Your task to perform on an android device: Add razer thresher to the cart on bestbuy, then select checkout. Image 0: 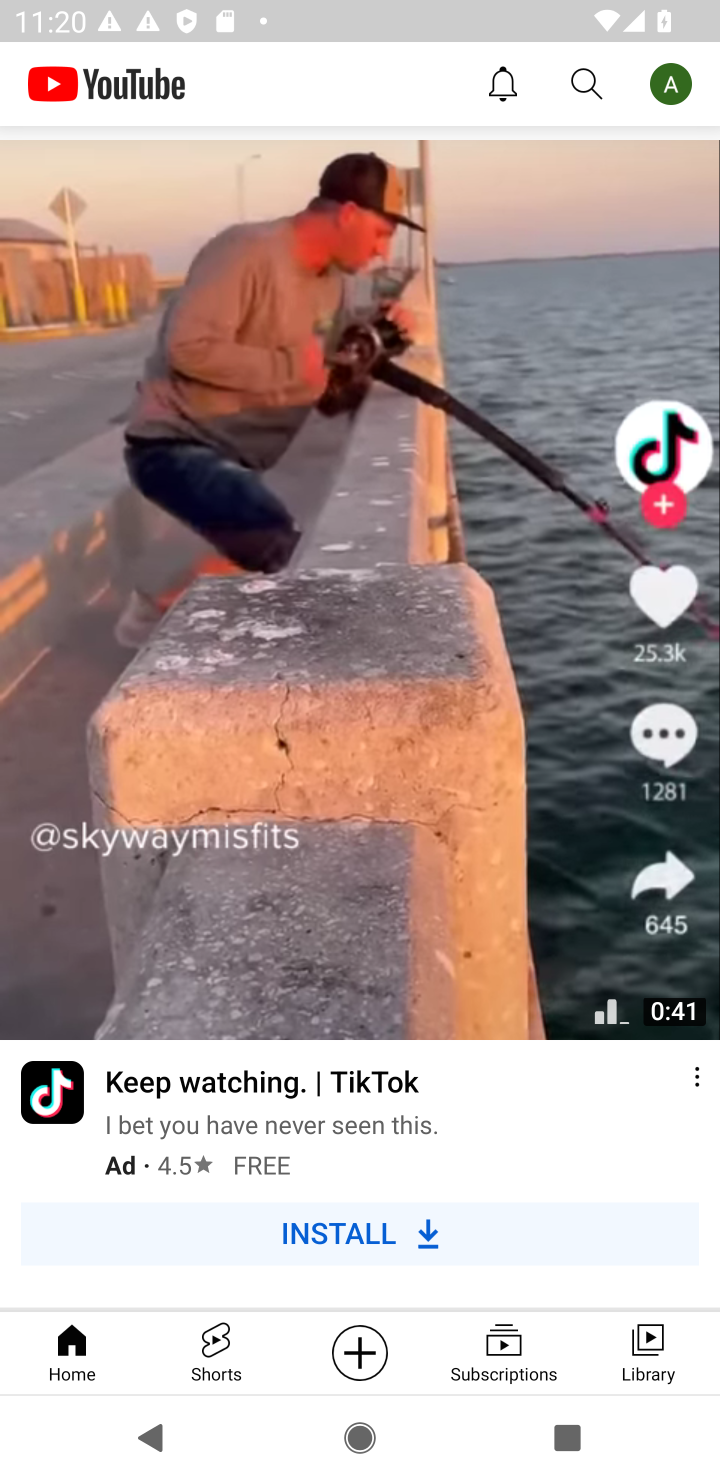
Step 0: press home button
Your task to perform on an android device: Add razer thresher to the cart on bestbuy, then select checkout. Image 1: 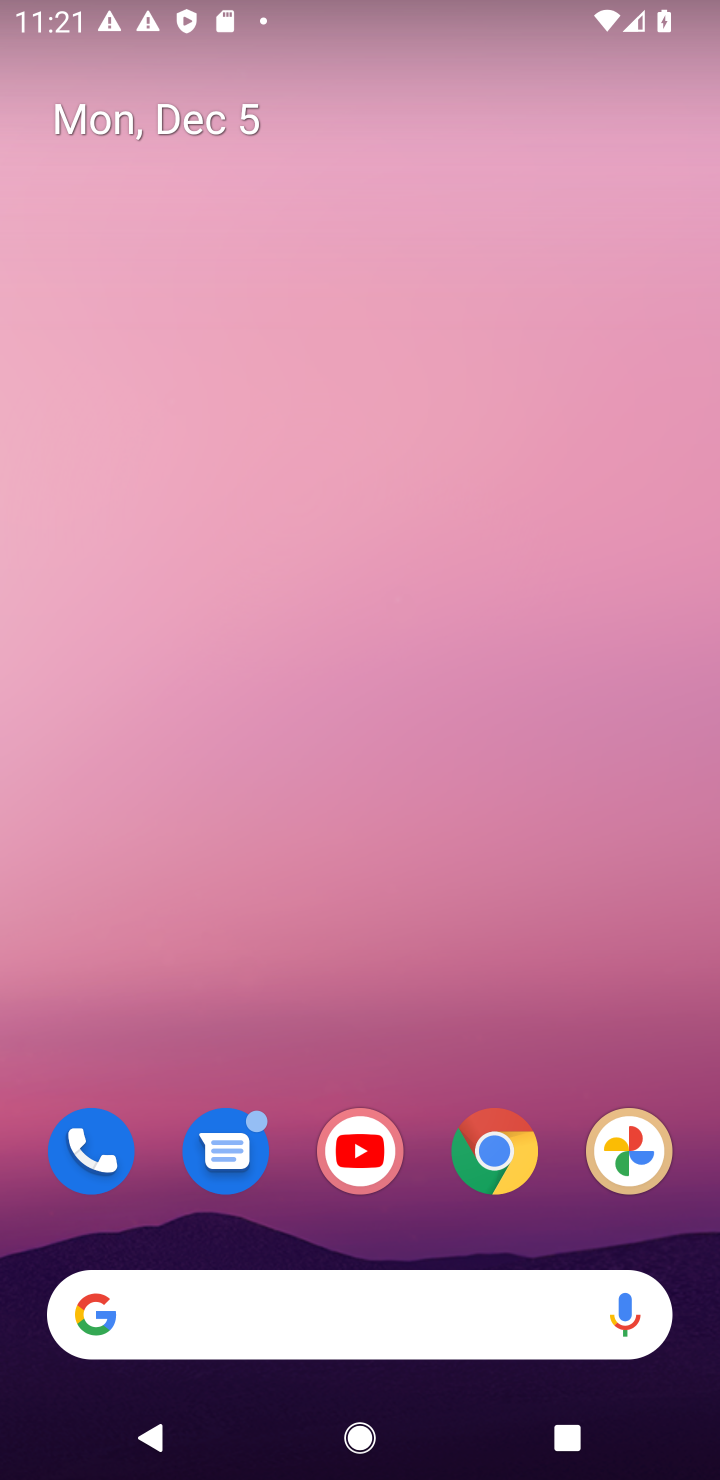
Step 1: click (499, 1163)
Your task to perform on an android device: Add razer thresher to the cart on bestbuy, then select checkout. Image 2: 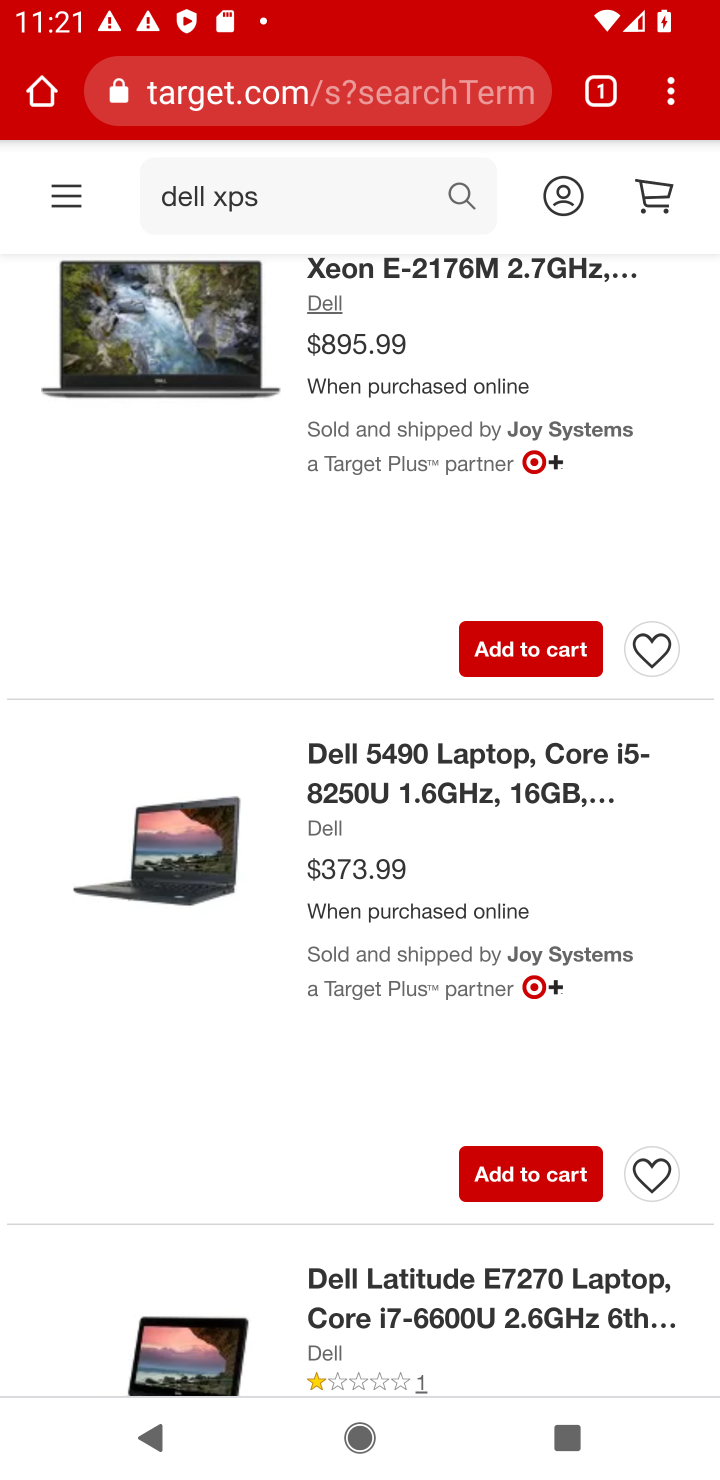
Step 2: click (282, 86)
Your task to perform on an android device: Add razer thresher to the cart on bestbuy, then select checkout. Image 3: 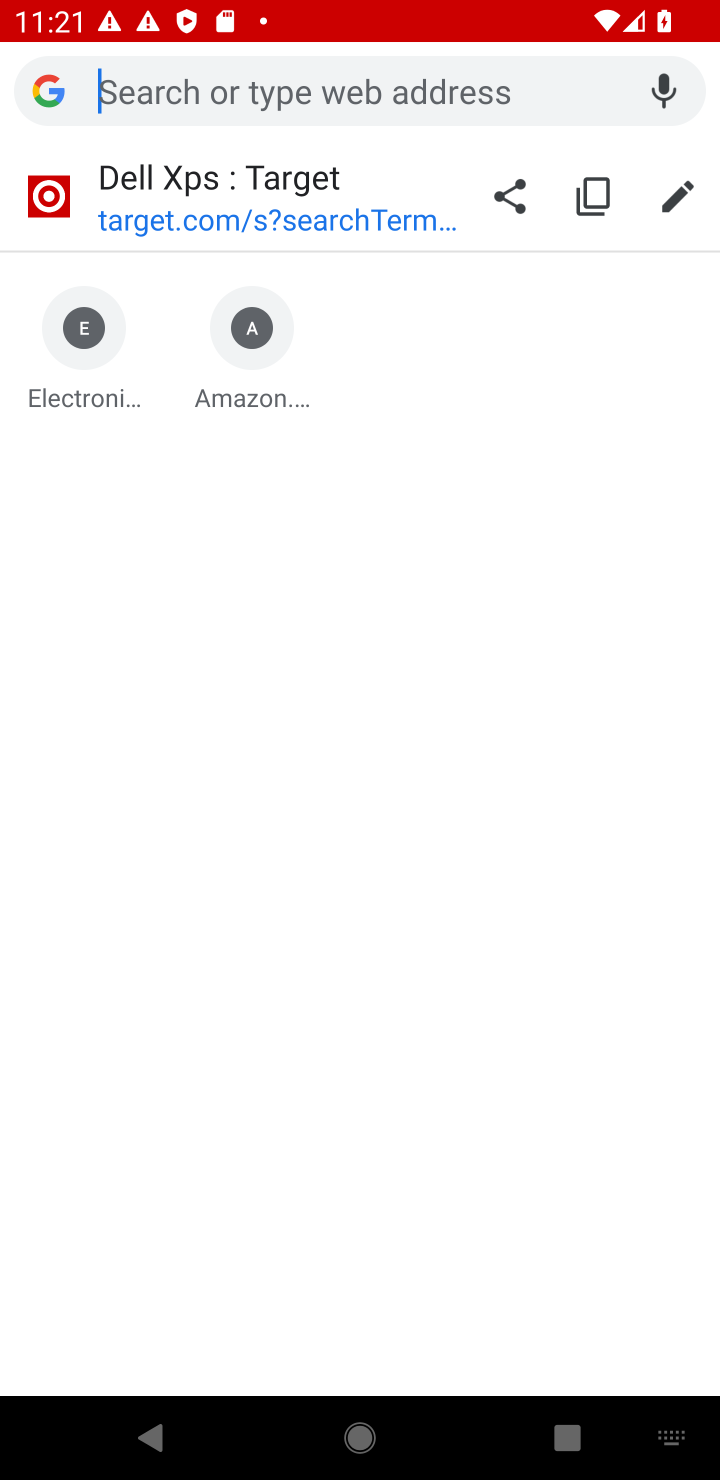
Step 3: type "bestbuy.com"
Your task to perform on an android device: Add razer thresher to the cart on bestbuy, then select checkout. Image 4: 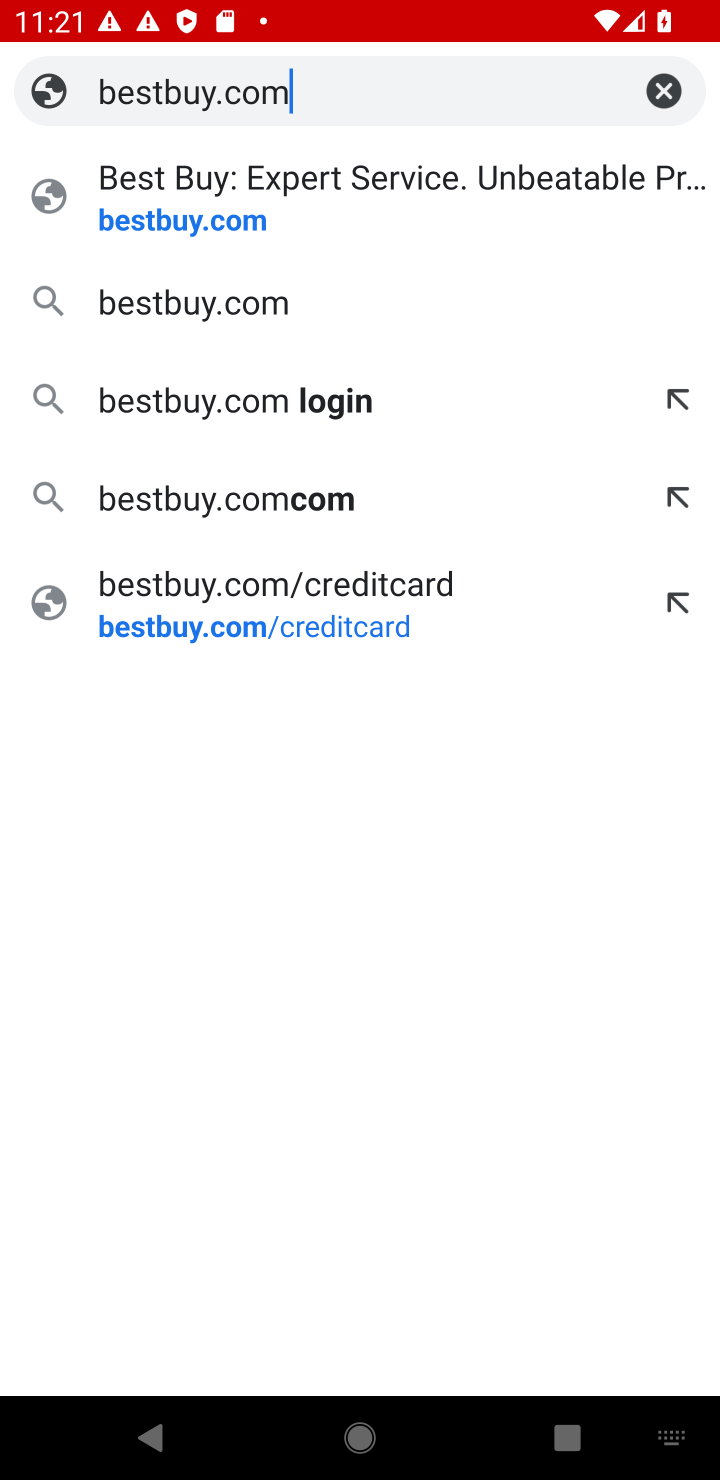
Step 4: click (154, 222)
Your task to perform on an android device: Add razer thresher to the cart on bestbuy, then select checkout. Image 5: 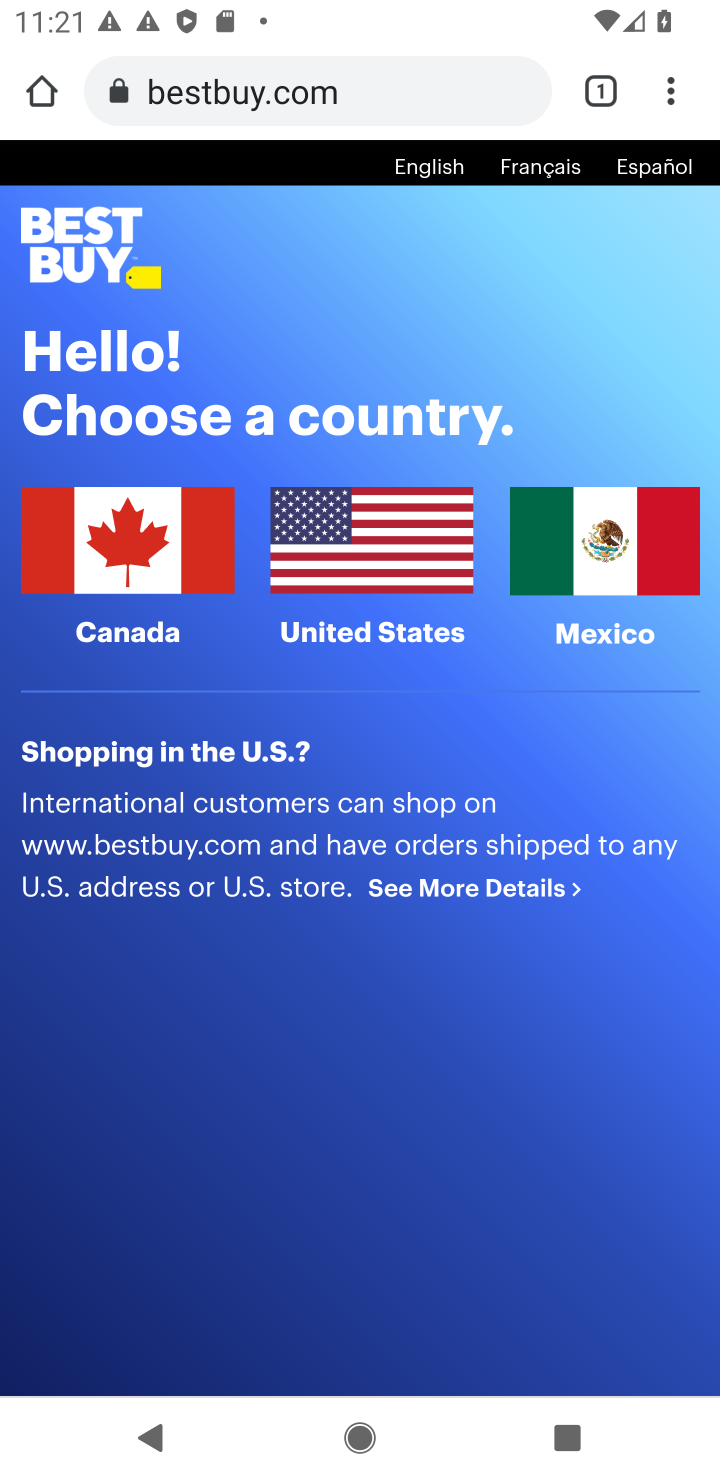
Step 5: click (374, 555)
Your task to perform on an android device: Add razer thresher to the cart on bestbuy, then select checkout. Image 6: 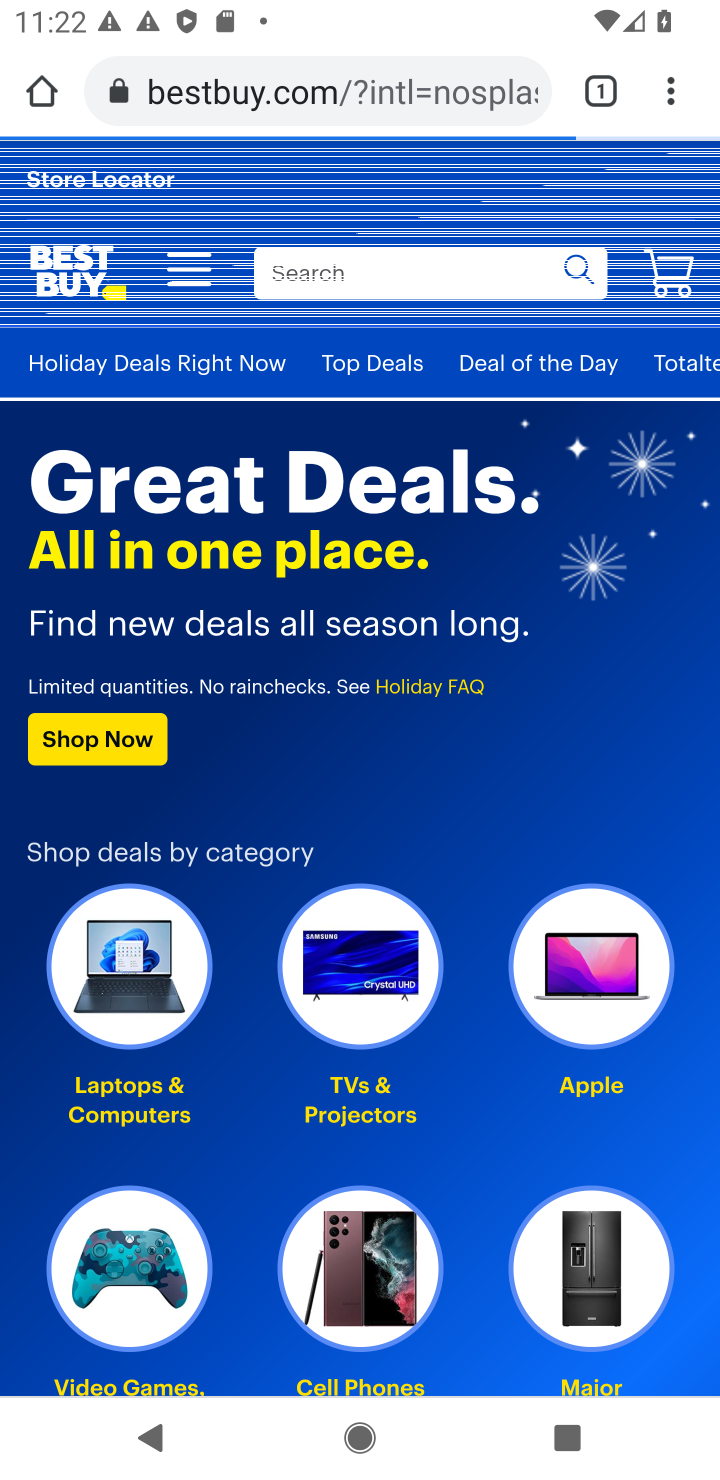
Step 6: click (327, 278)
Your task to perform on an android device: Add razer thresher to the cart on bestbuy, then select checkout. Image 7: 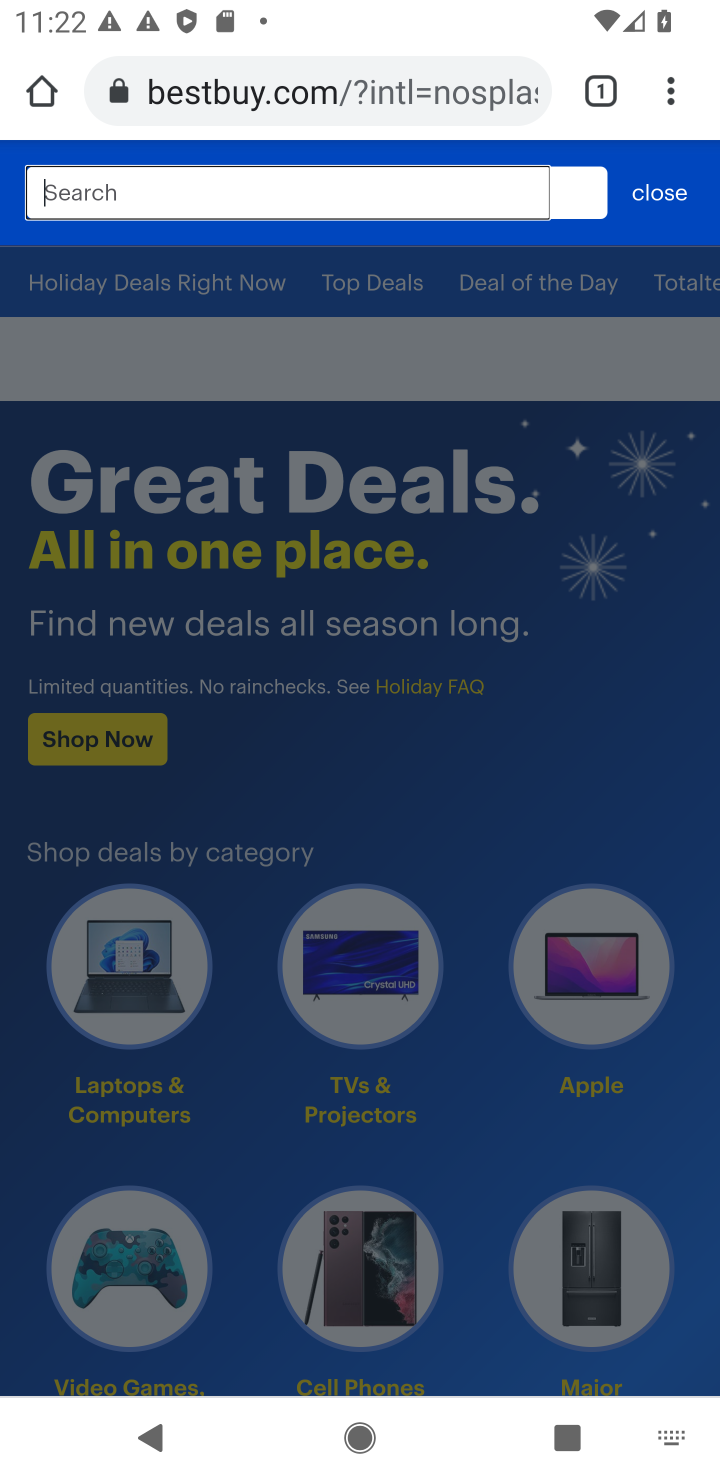
Step 7: click (327, 278)
Your task to perform on an android device: Add razer thresher to the cart on bestbuy, then select checkout. Image 8: 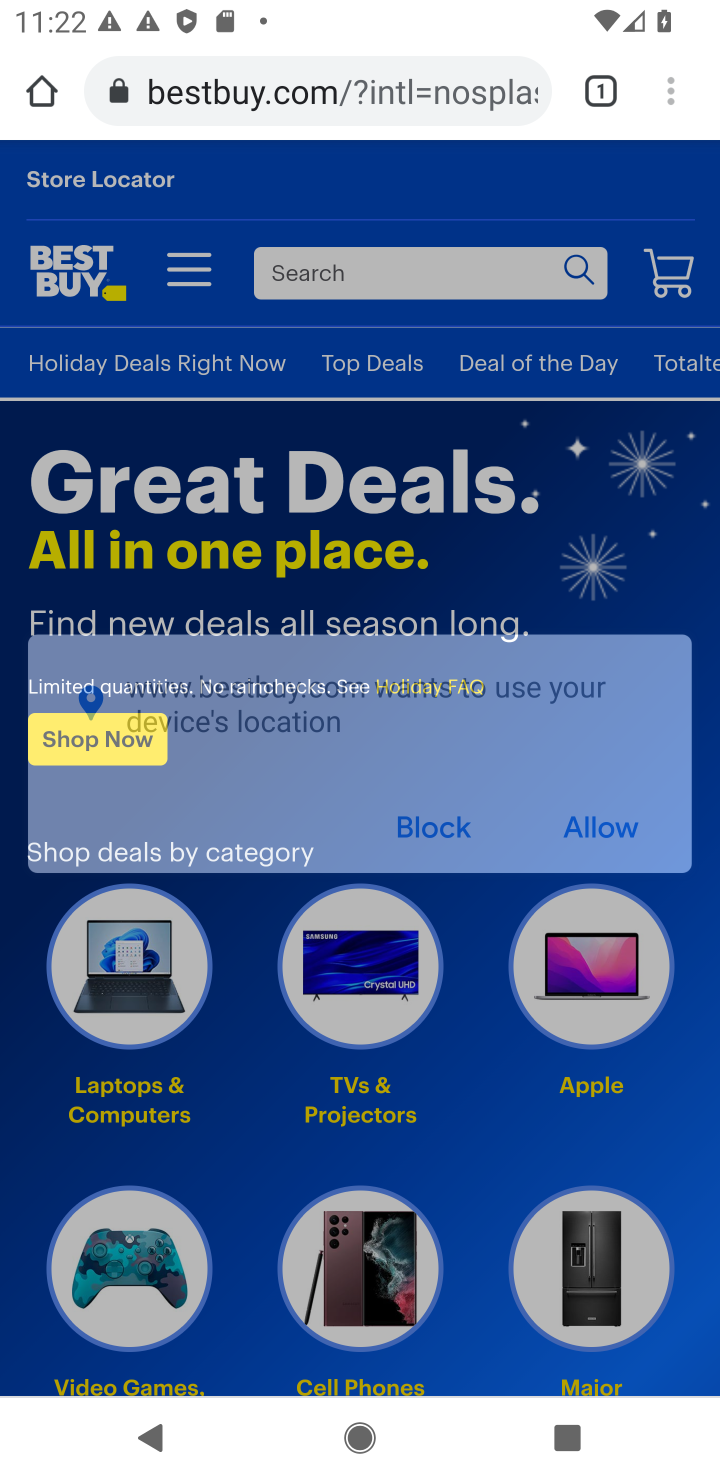
Step 8: type "razer thresher"
Your task to perform on an android device: Add razer thresher to the cart on bestbuy, then select checkout. Image 9: 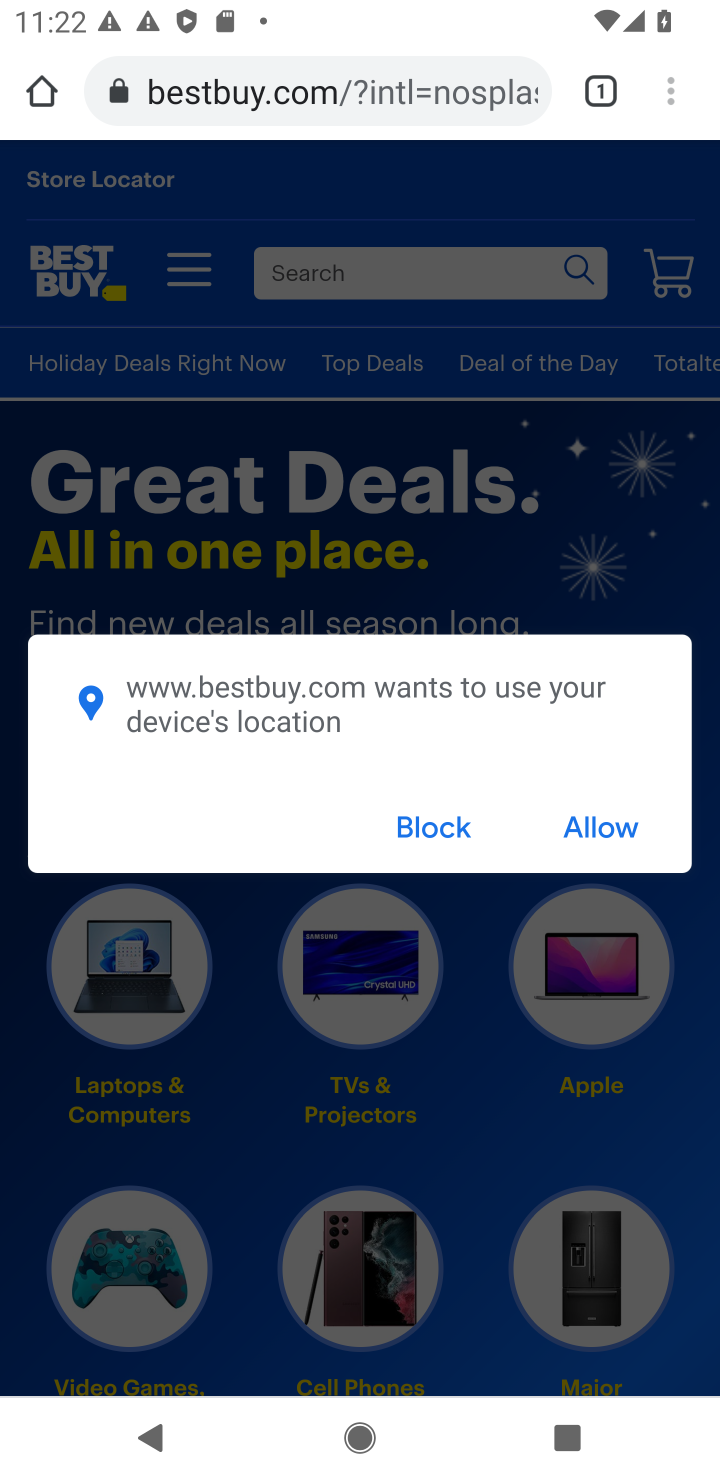
Step 9: click (410, 824)
Your task to perform on an android device: Add razer thresher to the cart on bestbuy, then select checkout. Image 10: 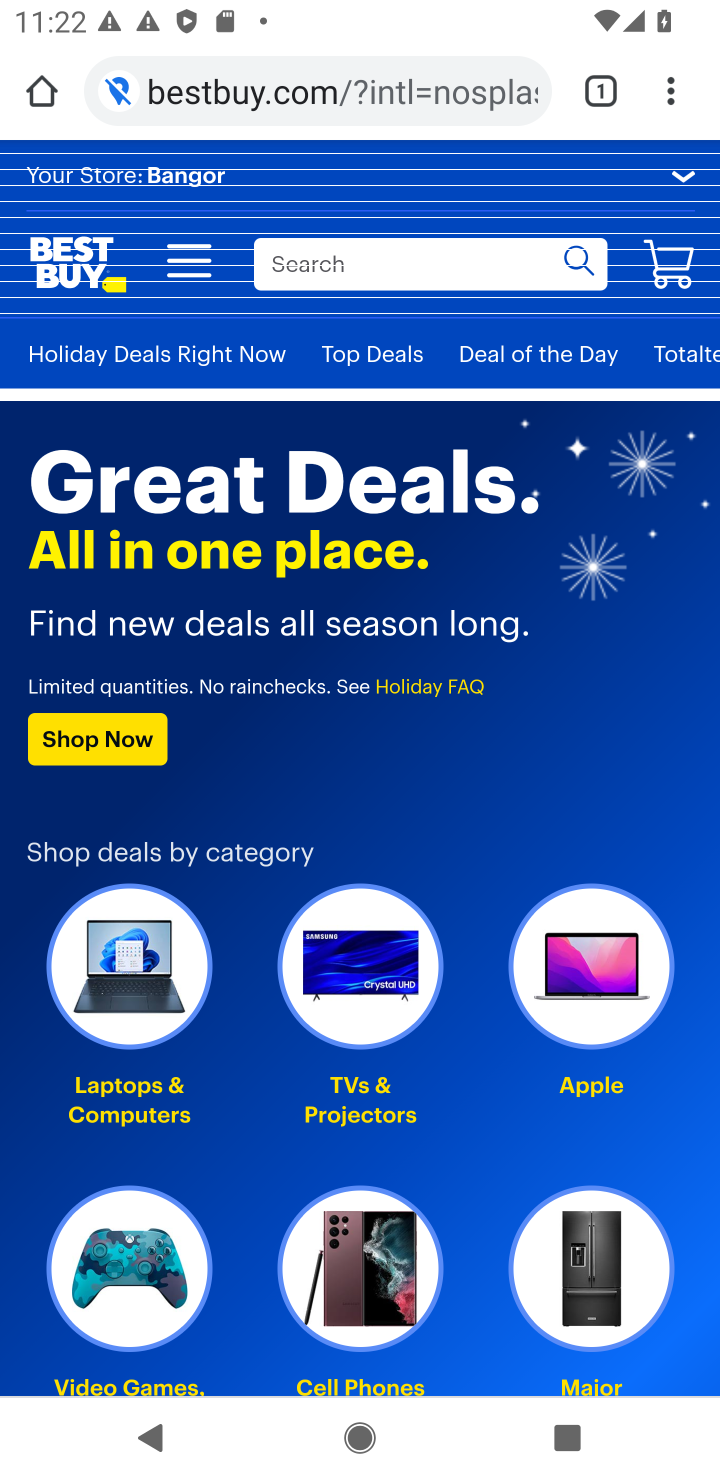
Step 10: click (355, 266)
Your task to perform on an android device: Add razer thresher to the cart on bestbuy, then select checkout. Image 11: 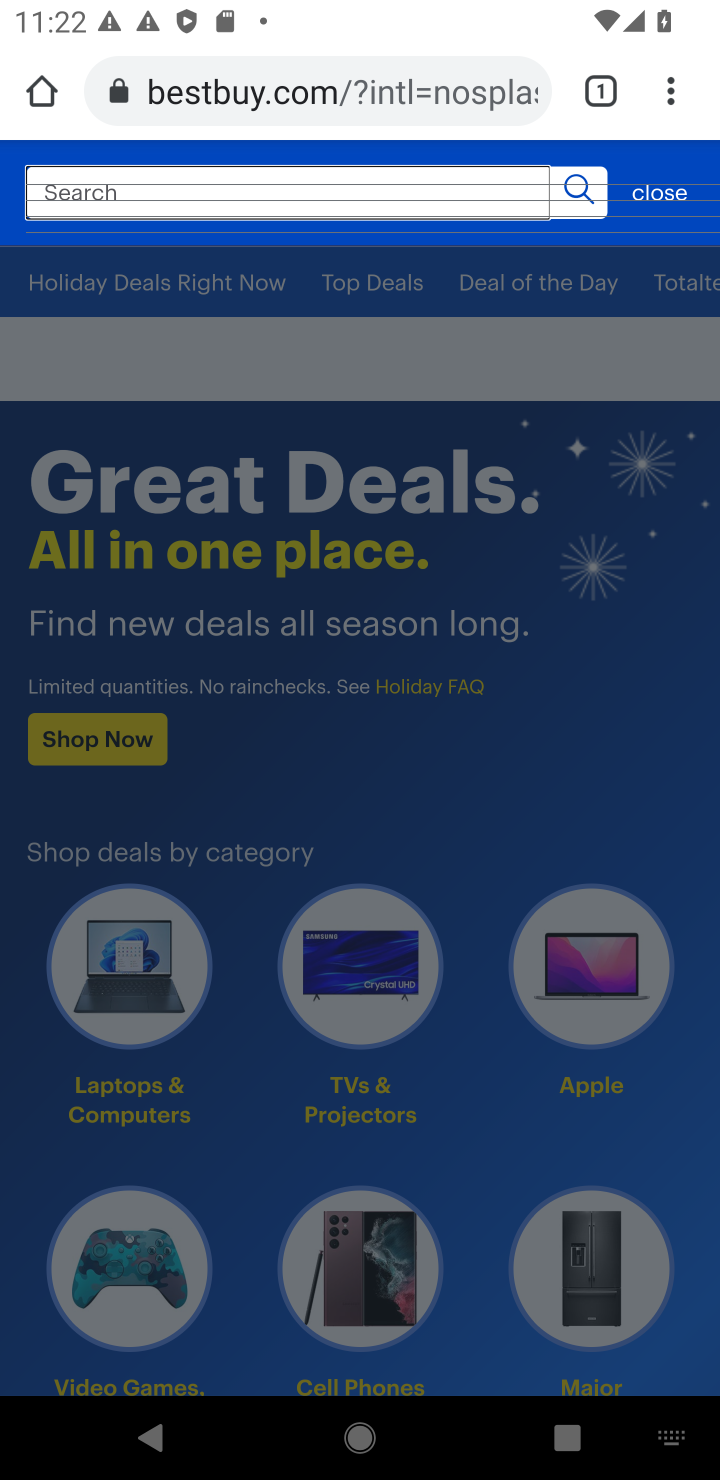
Step 11: type "razer thresher"
Your task to perform on an android device: Add razer thresher to the cart on bestbuy, then select checkout. Image 12: 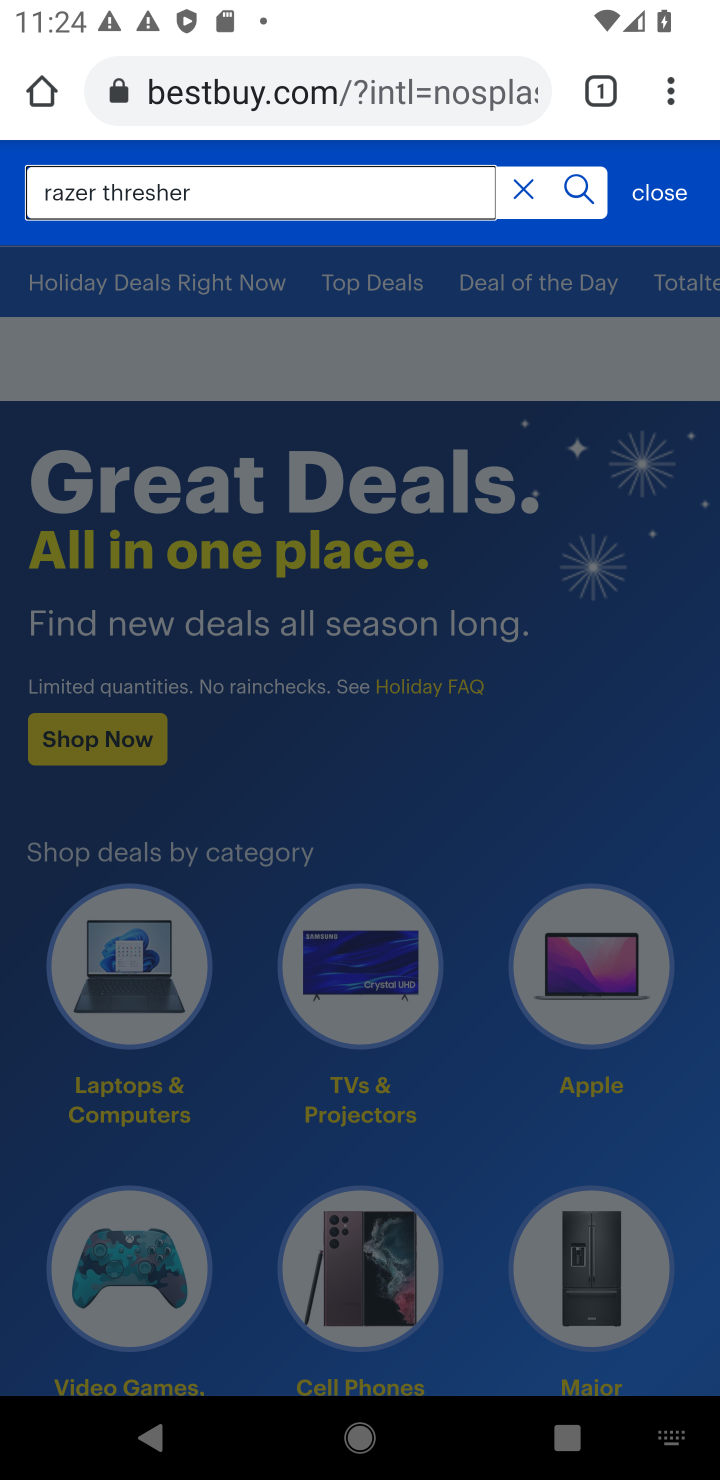
Step 12: click (577, 182)
Your task to perform on an android device: Add razer thresher to the cart on bestbuy, then select checkout. Image 13: 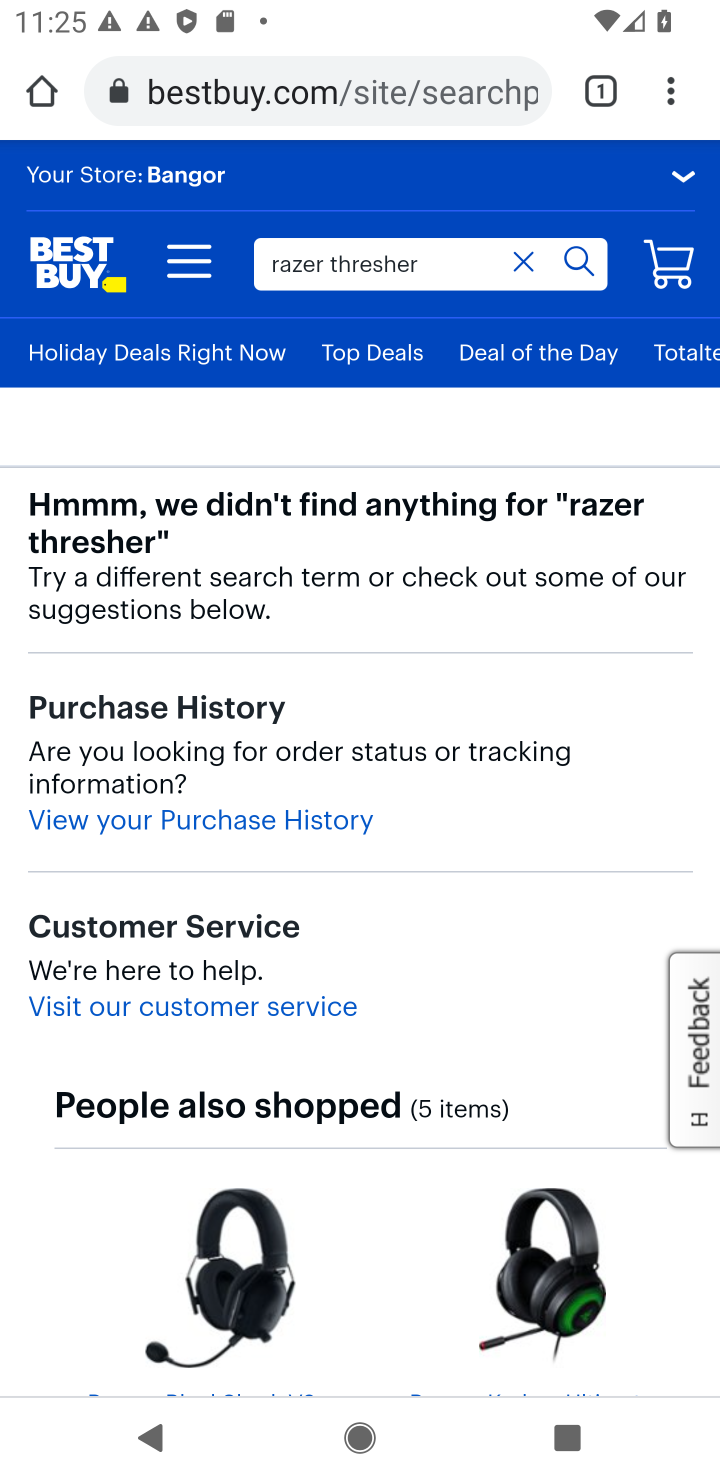
Step 13: task complete